Your task to perform on an android device: turn off airplane mode Image 0: 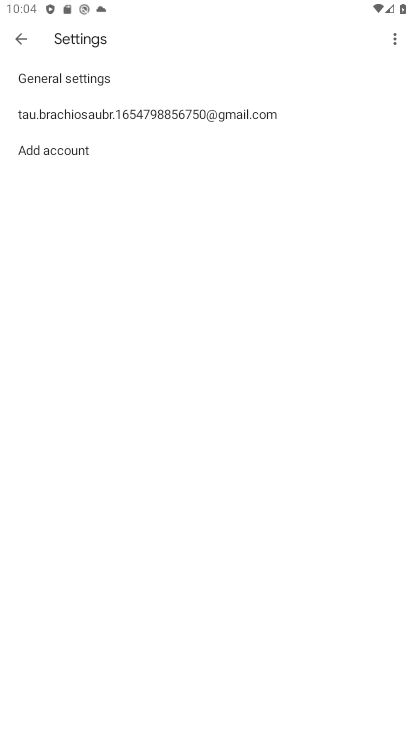
Step 0: press home button
Your task to perform on an android device: turn off airplane mode Image 1: 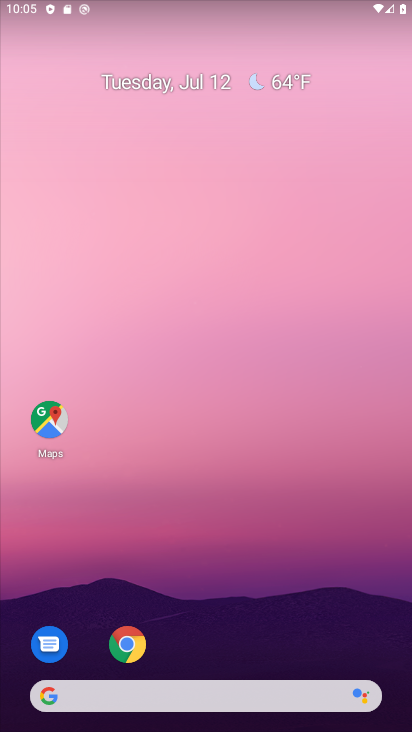
Step 1: drag from (272, 661) to (128, 179)
Your task to perform on an android device: turn off airplane mode Image 2: 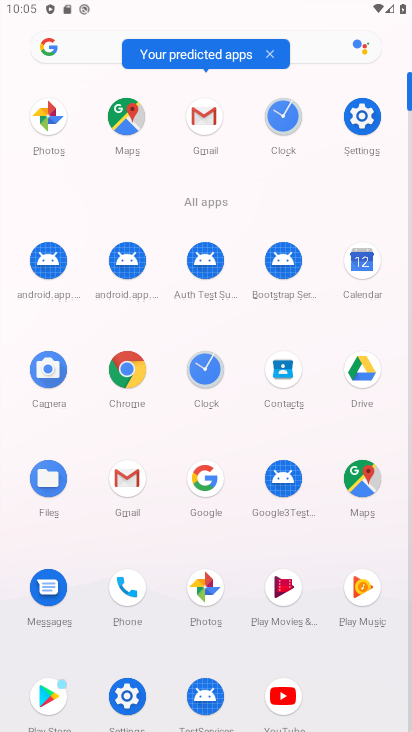
Step 2: click (366, 137)
Your task to perform on an android device: turn off airplane mode Image 3: 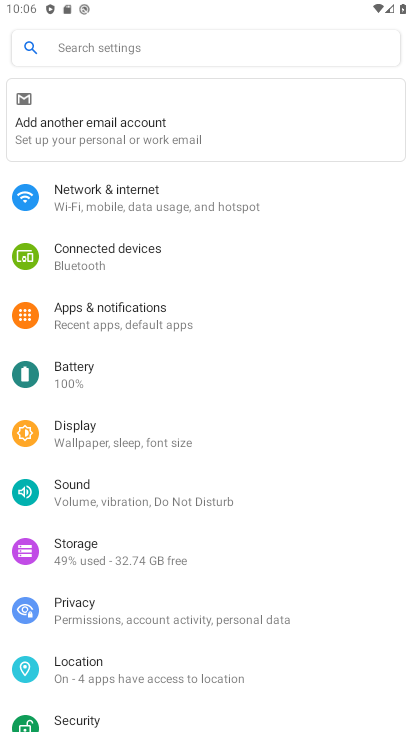
Step 3: click (162, 203)
Your task to perform on an android device: turn off airplane mode Image 4: 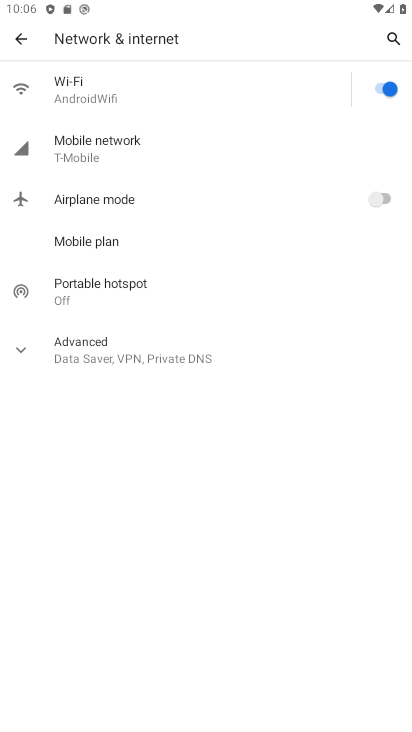
Step 4: task complete